Your task to perform on an android device: Go to privacy settings Image 0: 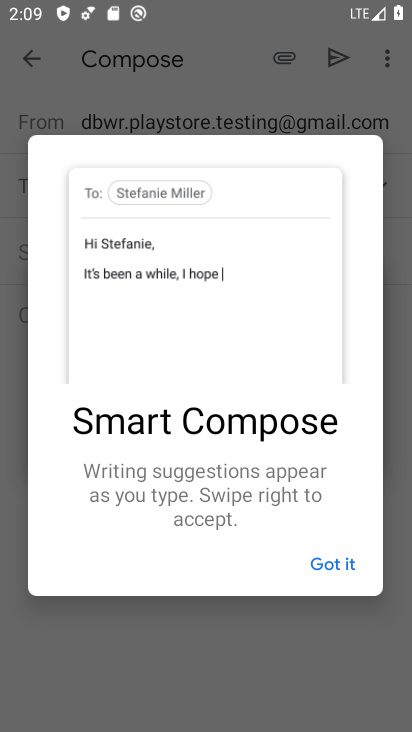
Step 0: press home button
Your task to perform on an android device: Go to privacy settings Image 1: 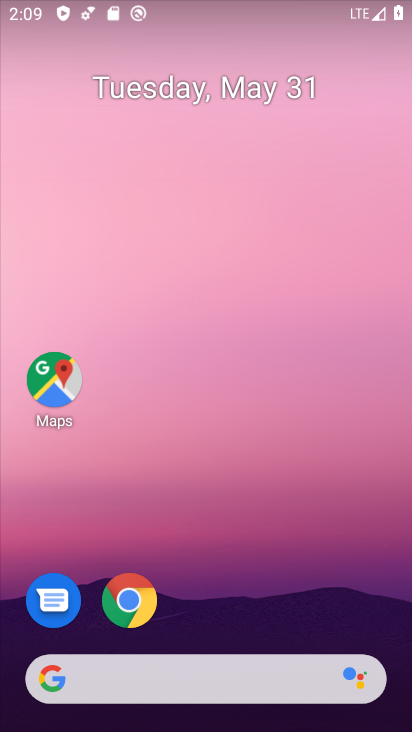
Step 1: drag from (213, 643) to (281, 52)
Your task to perform on an android device: Go to privacy settings Image 2: 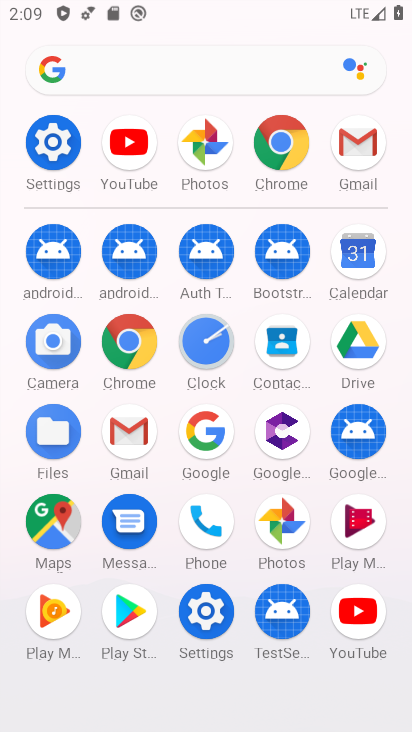
Step 2: click (191, 626)
Your task to perform on an android device: Go to privacy settings Image 3: 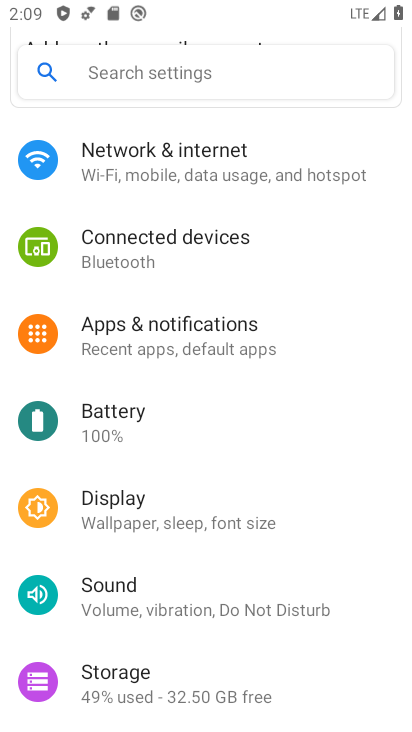
Step 3: drag from (165, 637) to (213, 166)
Your task to perform on an android device: Go to privacy settings Image 4: 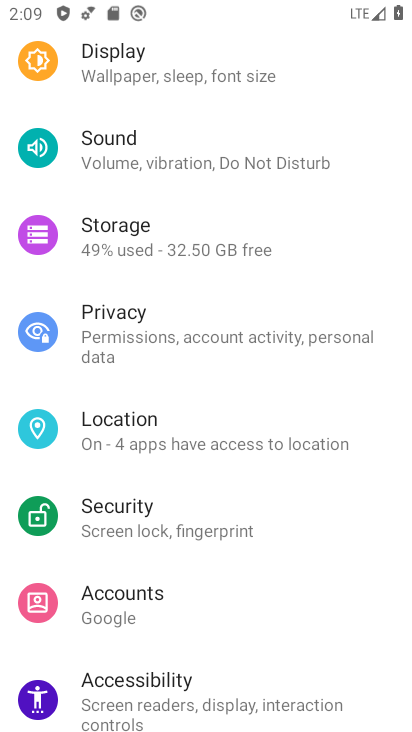
Step 4: click (156, 318)
Your task to perform on an android device: Go to privacy settings Image 5: 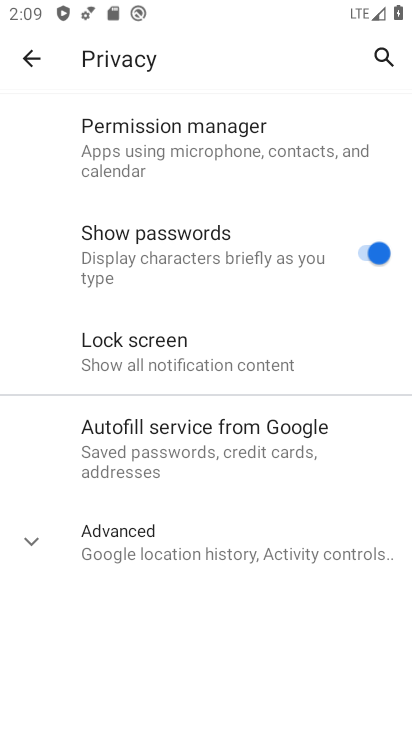
Step 5: click (62, 546)
Your task to perform on an android device: Go to privacy settings Image 6: 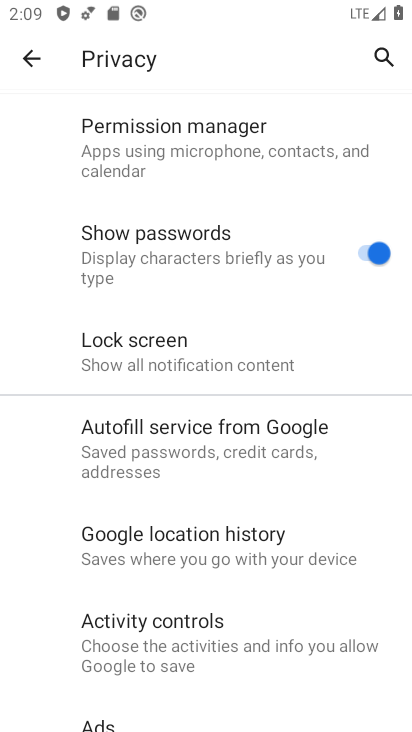
Step 6: task complete